Your task to perform on an android device: Open calendar and show me the second week of next month Image 0: 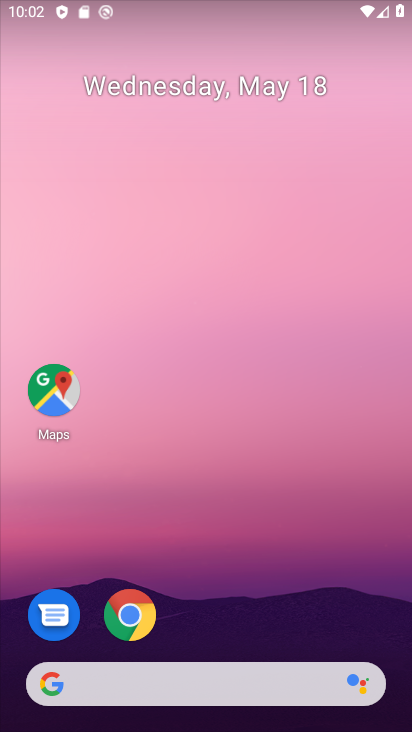
Step 0: click (179, 89)
Your task to perform on an android device: Open calendar and show me the second week of next month Image 1: 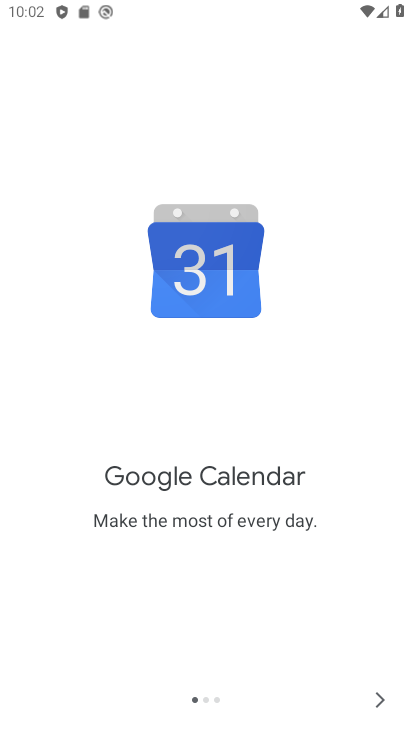
Step 1: click (369, 697)
Your task to perform on an android device: Open calendar and show me the second week of next month Image 2: 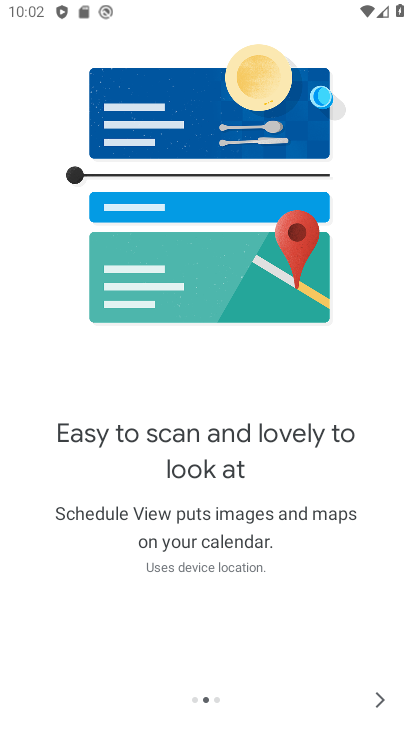
Step 2: click (369, 697)
Your task to perform on an android device: Open calendar and show me the second week of next month Image 3: 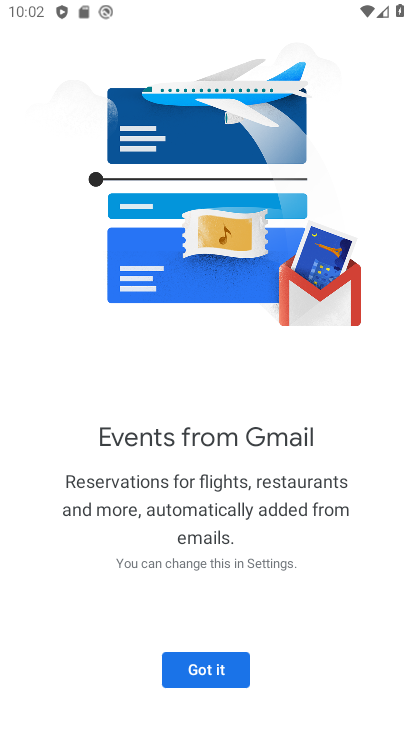
Step 3: click (225, 659)
Your task to perform on an android device: Open calendar and show me the second week of next month Image 4: 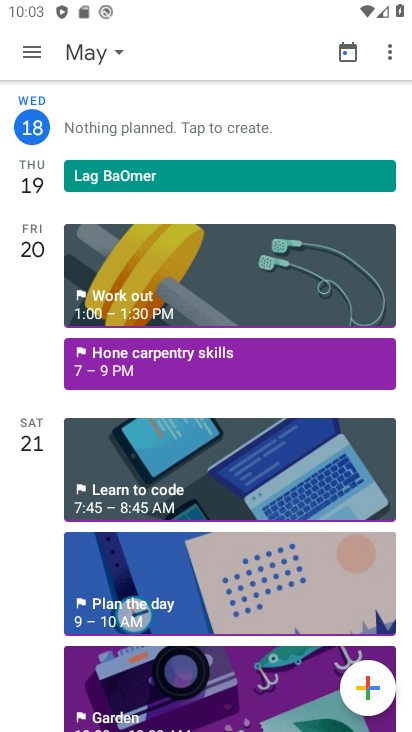
Step 4: click (83, 48)
Your task to perform on an android device: Open calendar and show me the second week of next month Image 5: 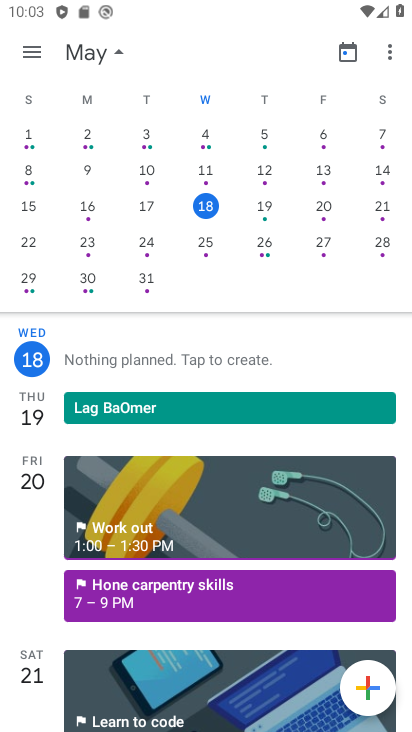
Step 5: drag from (267, 281) to (42, 264)
Your task to perform on an android device: Open calendar and show me the second week of next month Image 6: 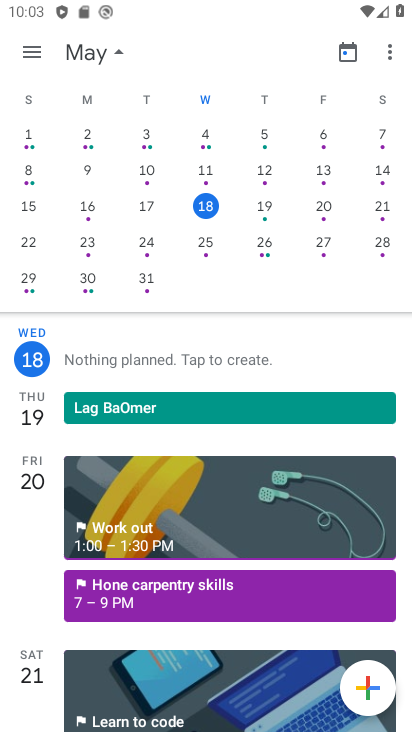
Step 6: drag from (384, 295) to (4, 228)
Your task to perform on an android device: Open calendar and show me the second week of next month Image 7: 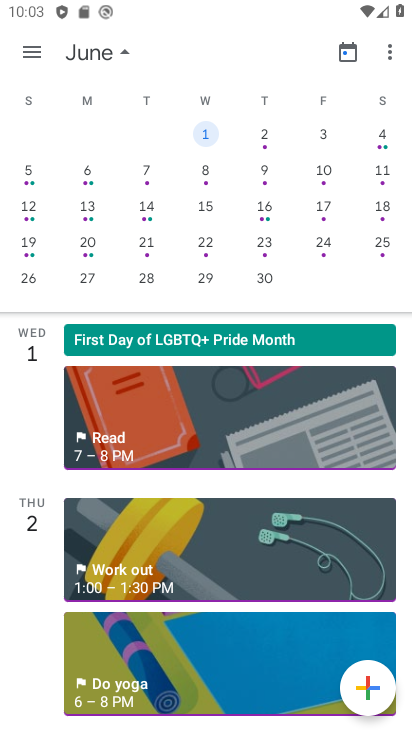
Step 7: click (268, 169)
Your task to perform on an android device: Open calendar and show me the second week of next month Image 8: 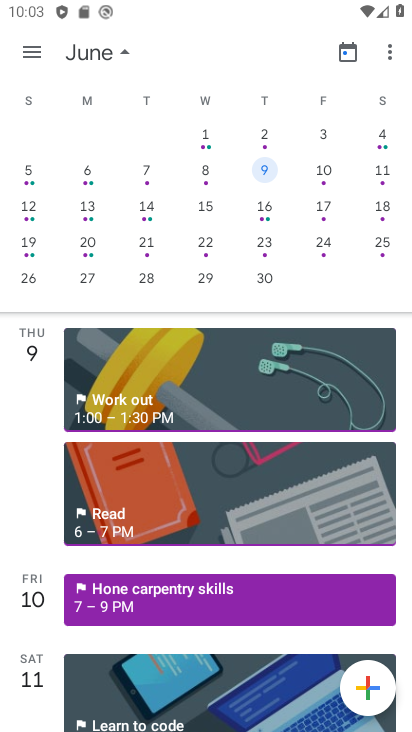
Step 8: task complete